Your task to perform on an android device: Go to Google maps Image 0: 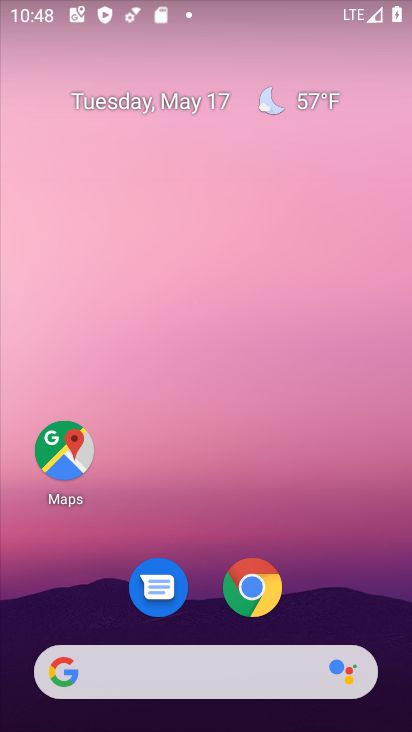
Step 0: drag from (377, 624) to (248, 41)
Your task to perform on an android device: Go to Google maps Image 1: 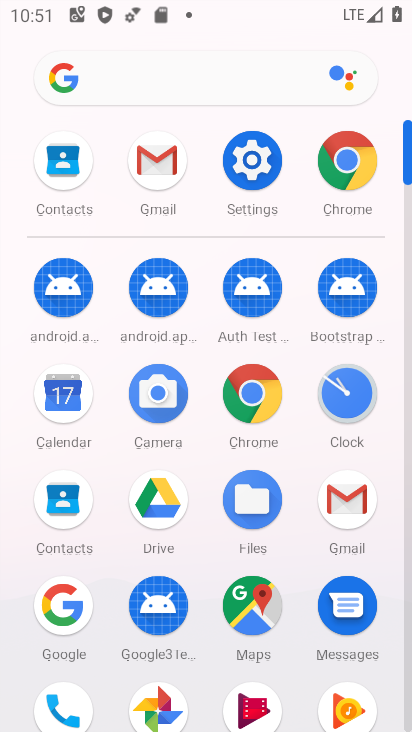
Step 1: click (234, 596)
Your task to perform on an android device: Go to Google maps Image 2: 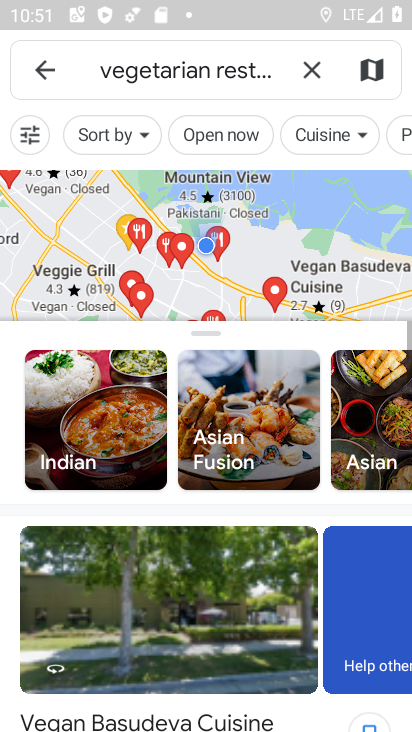
Step 2: click (306, 82)
Your task to perform on an android device: Go to Google maps Image 3: 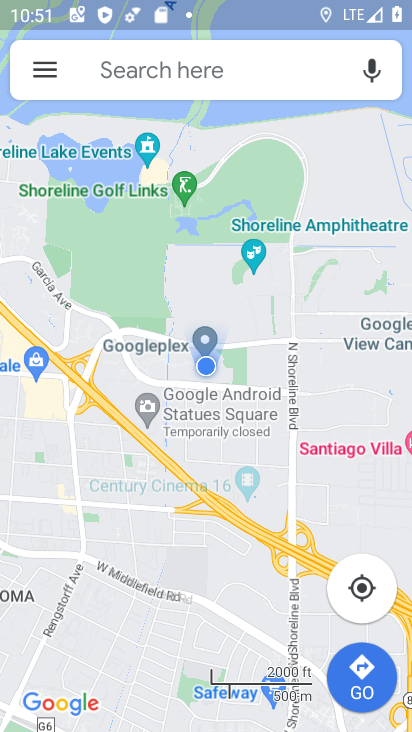
Step 3: task complete